Your task to perform on an android device: Open Yahoo.com Image 0: 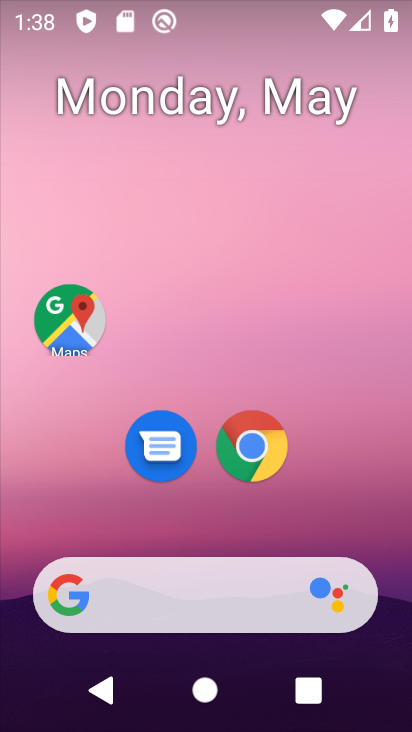
Step 0: drag from (312, 493) to (336, 77)
Your task to perform on an android device: Open Yahoo.com Image 1: 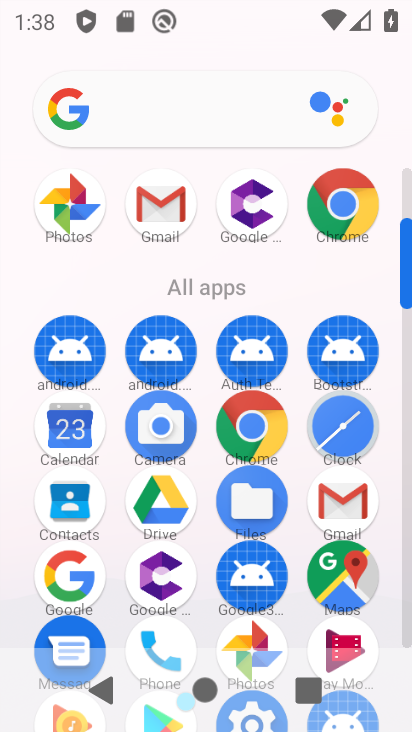
Step 1: click (258, 427)
Your task to perform on an android device: Open Yahoo.com Image 2: 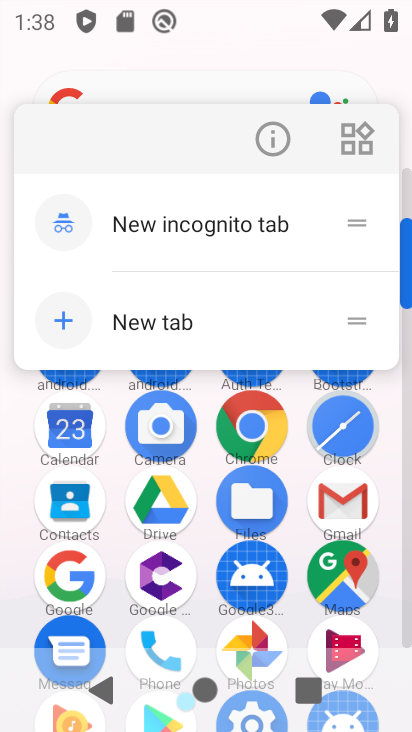
Step 2: click (249, 444)
Your task to perform on an android device: Open Yahoo.com Image 3: 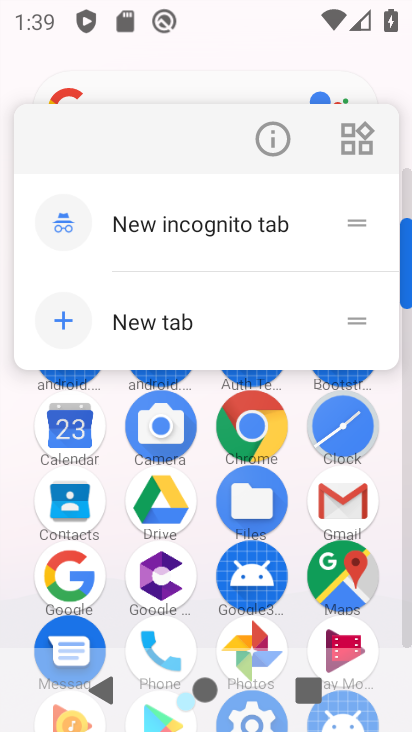
Step 3: click (253, 445)
Your task to perform on an android device: Open Yahoo.com Image 4: 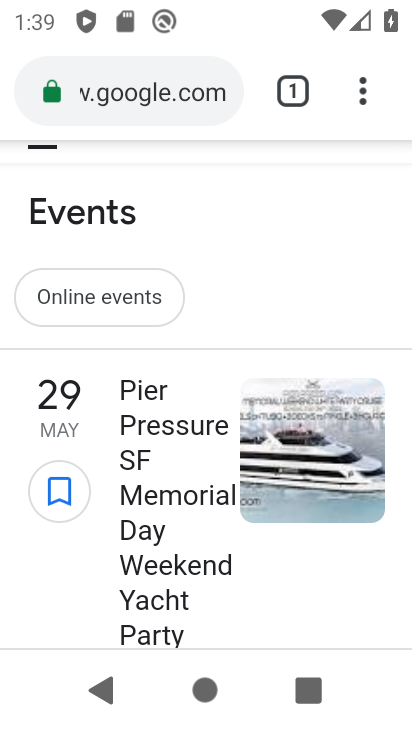
Step 4: click (143, 69)
Your task to perform on an android device: Open Yahoo.com Image 5: 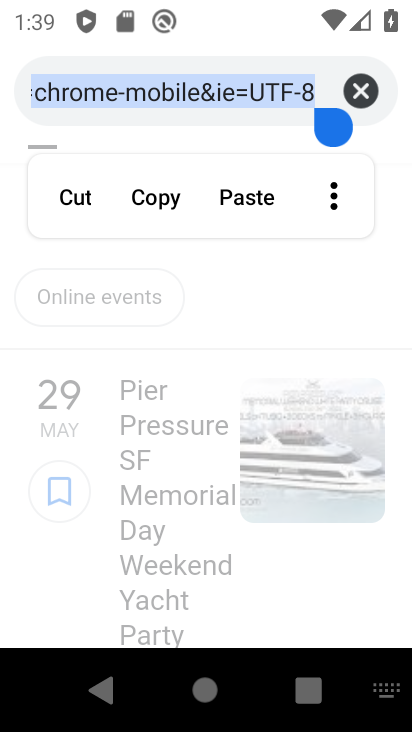
Step 5: click (354, 90)
Your task to perform on an android device: Open Yahoo.com Image 6: 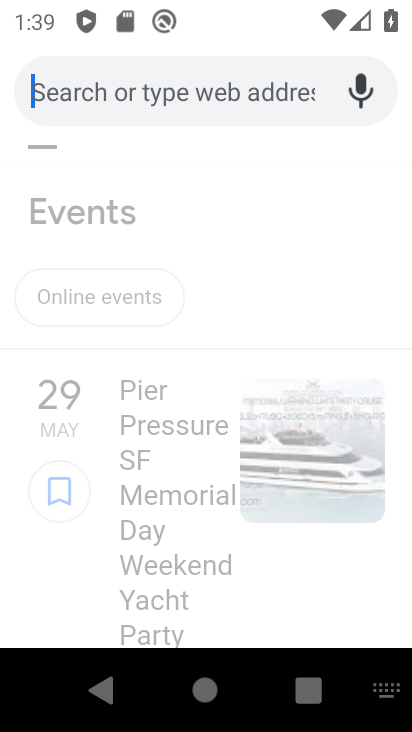
Step 6: type "y"
Your task to perform on an android device: Open Yahoo.com Image 7: 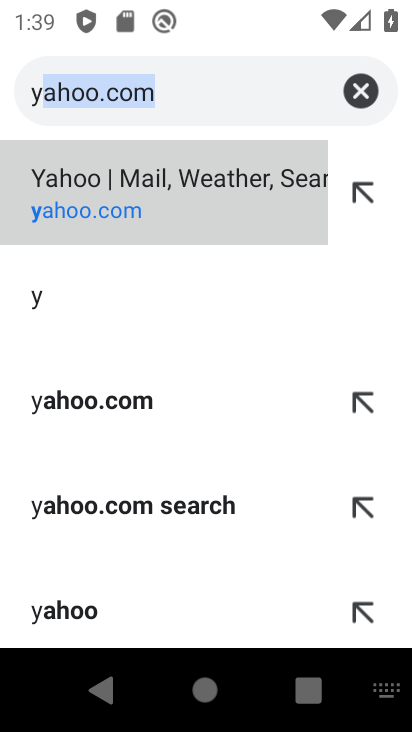
Step 7: type "yahoo.com"
Your task to perform on an android device: Open Yahoo.com Image 8: 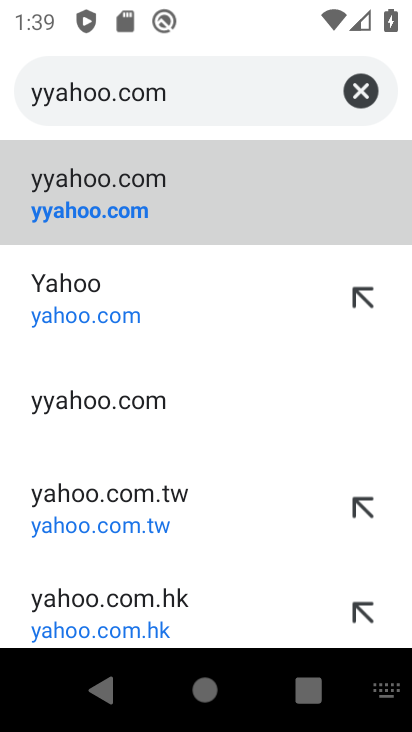
Step 8: click (132, 194)
Your task to perform on an android device: Open Yahoo.com Image 9: 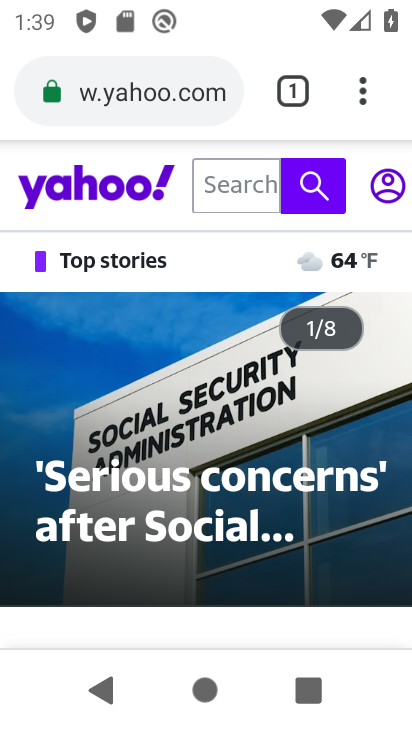
Step 9: task complete